Your task to perform on an android device: open app "Life360: Find Family & Friends" (install if not already installed) Image 0: 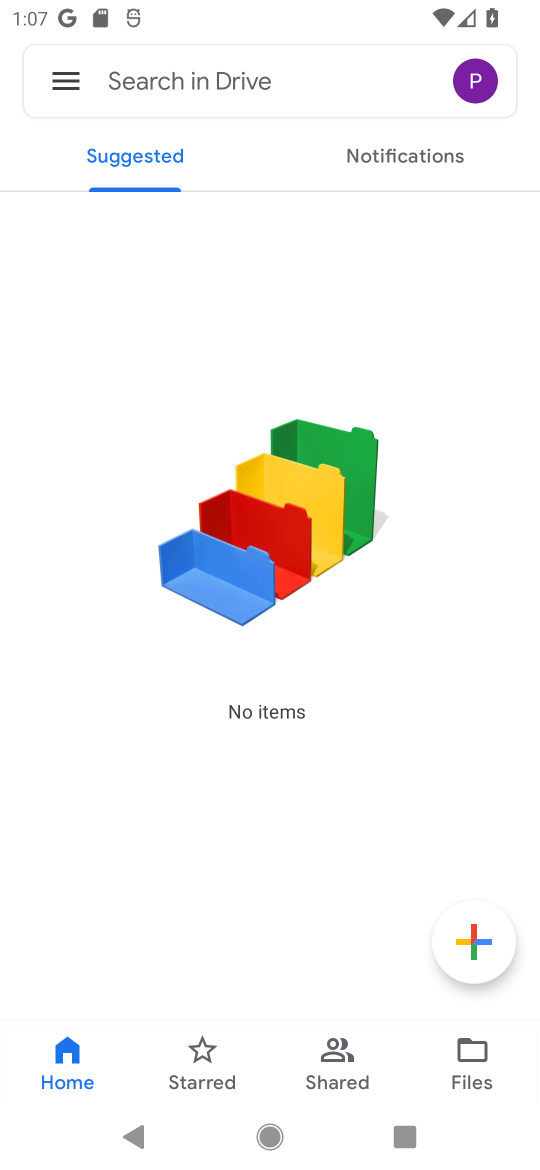
Step 0: press back button
Your task to perform on an android device: open app "Life360: Find Family & Friends" (install if not already installed) Image 1: 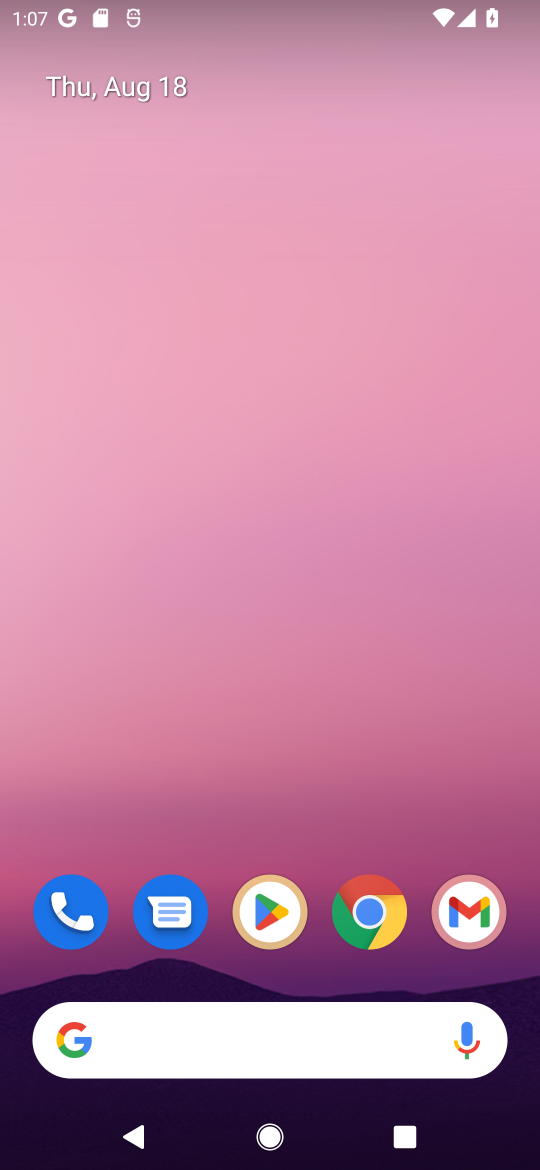
Step 1: click (267, 907)
Your task to perform on an android device: open app "Life360: Find Family & Friends" (install if not already installed) Image 2: 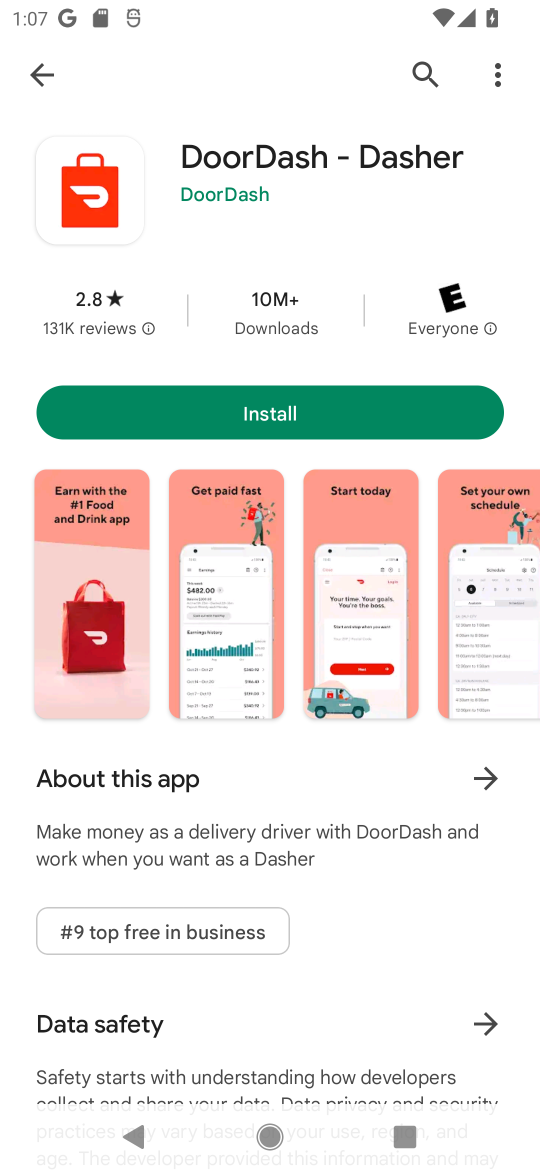
Step 2: click (413, 74)
Your task to perform on an android device: open app "Life360: Find Family & Friends" (install if not already installed) Image 3: 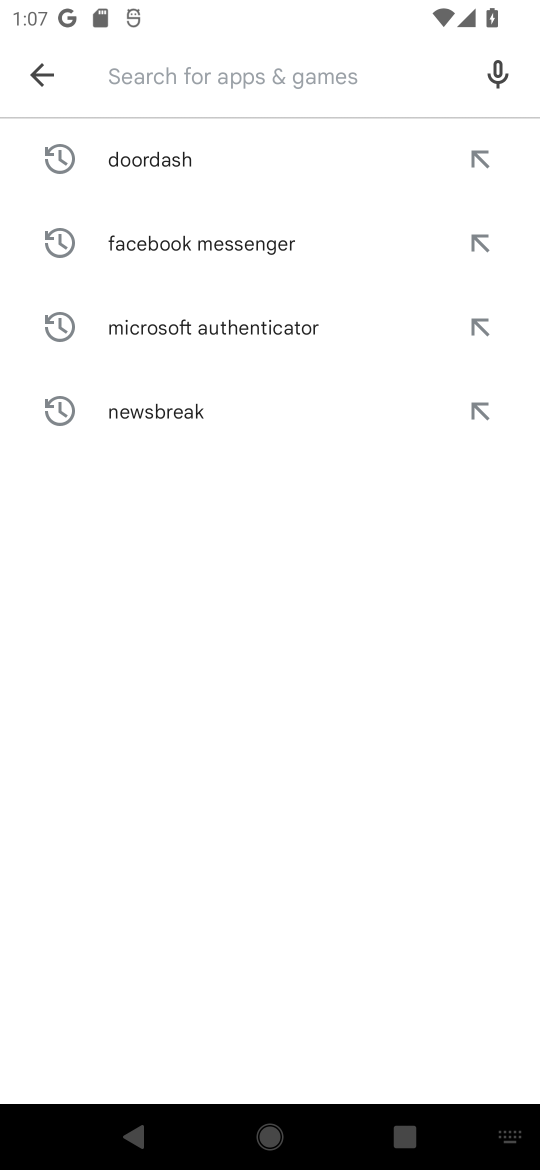
Step 3: click (211, 73)
Your task to perform on an android device: open app "Life360: Find Family & Friends" (install if not already installed) Image 4: 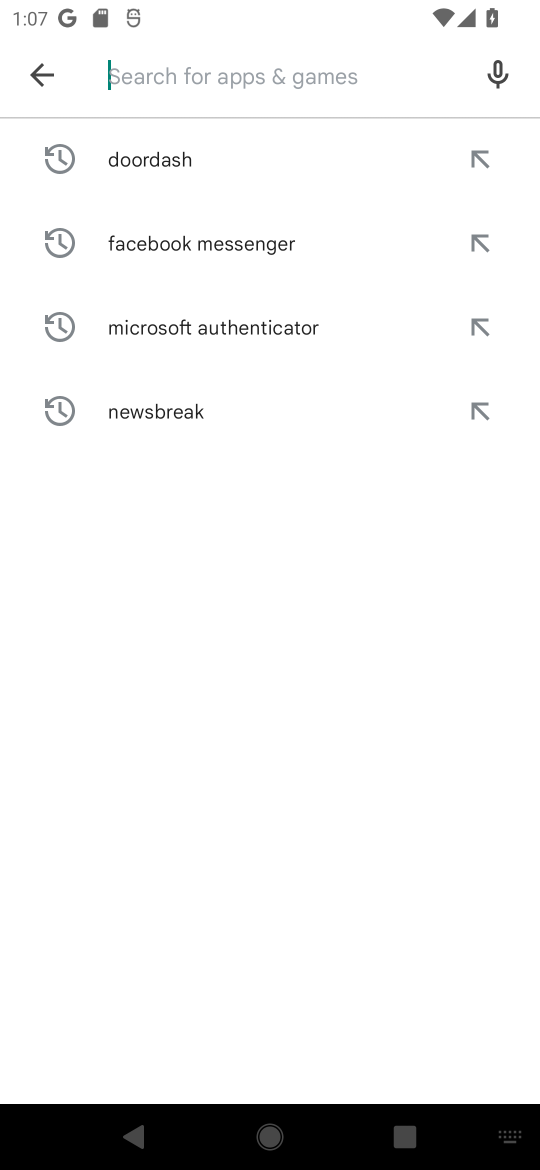
Step 4: type "Life360"
Your task to perform on an android device: open app "Life360: Find Family & Friends" (install if not already installed) Image 5: 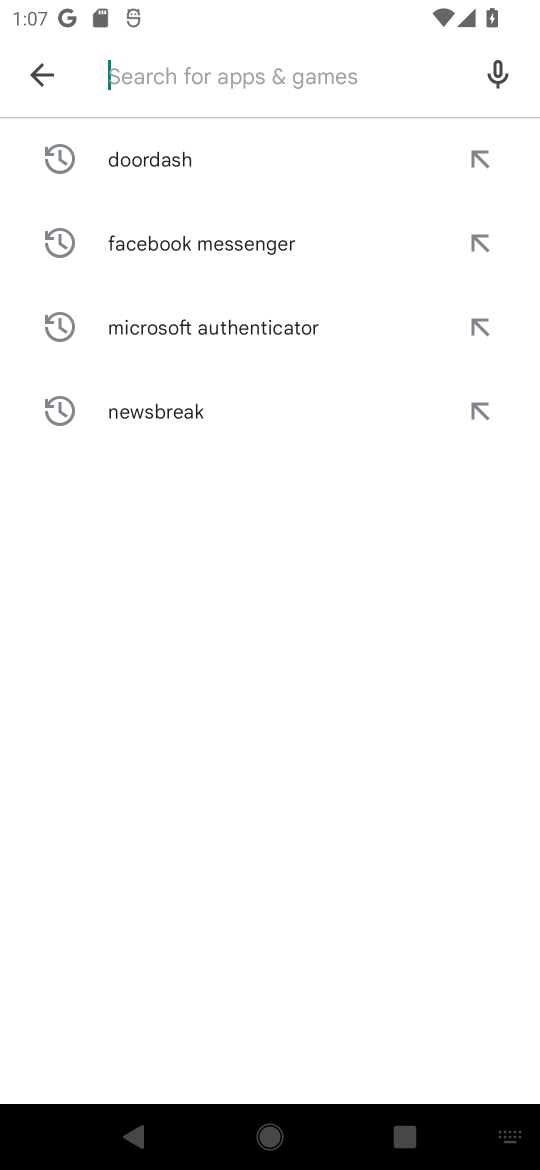
Step 5: click (411, 744)
Your task to perform on an android device: open app "Life360: Find Family & Friends" (install if not already installed) Image 6: 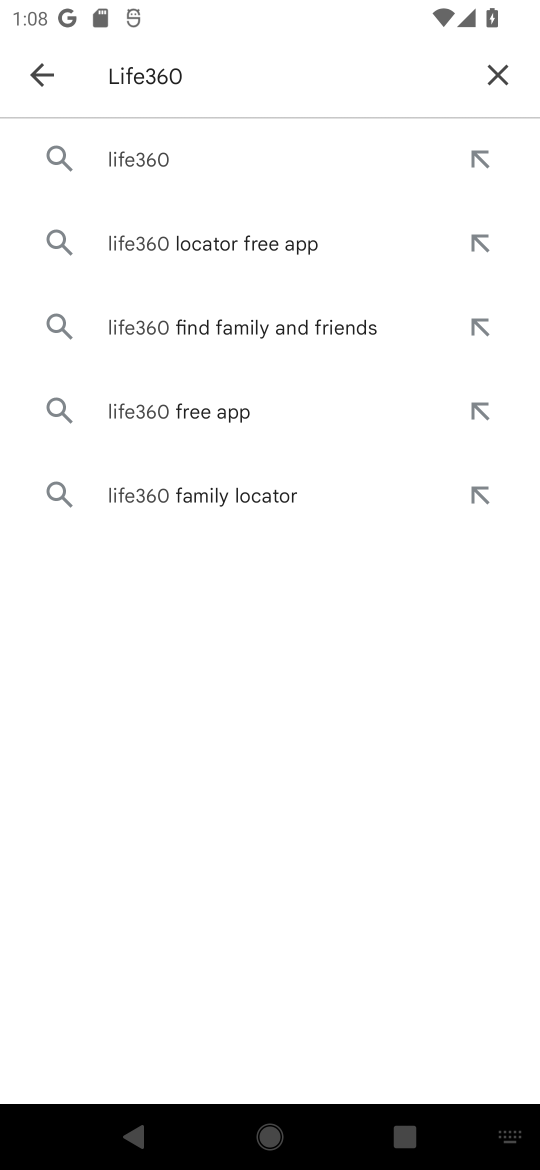
Step 6: click (166, 164)
Your task to perform on an android device: open app "Life360: Find Family & Friends" (install if not already installed) Image 7: 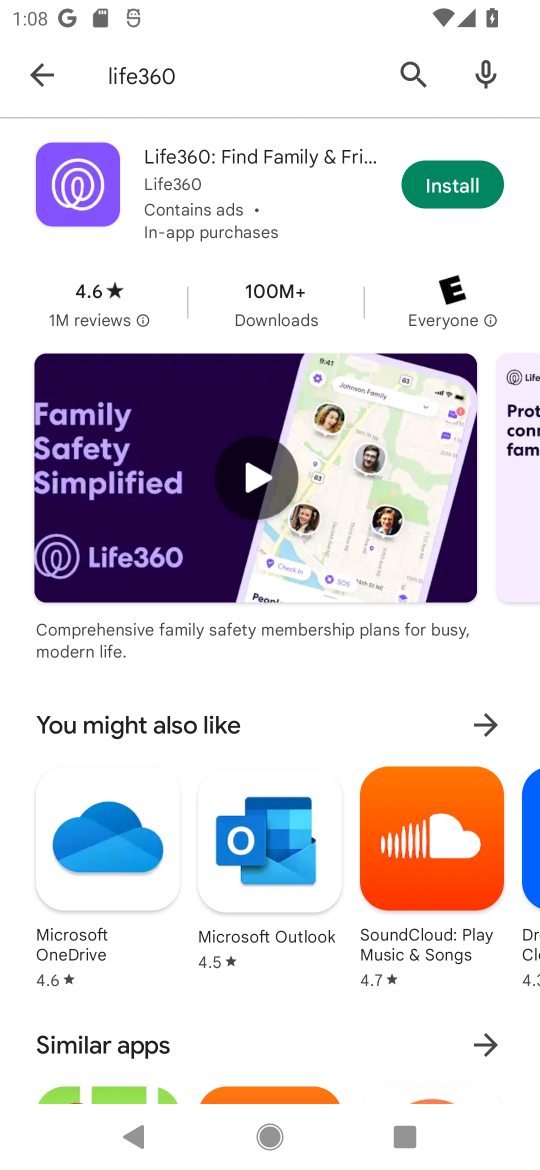
Step 7: click (421, 186)
Your task to perform on an android device: open app "Life360: Find Family & Friends" (install if not already installed) Image 8: 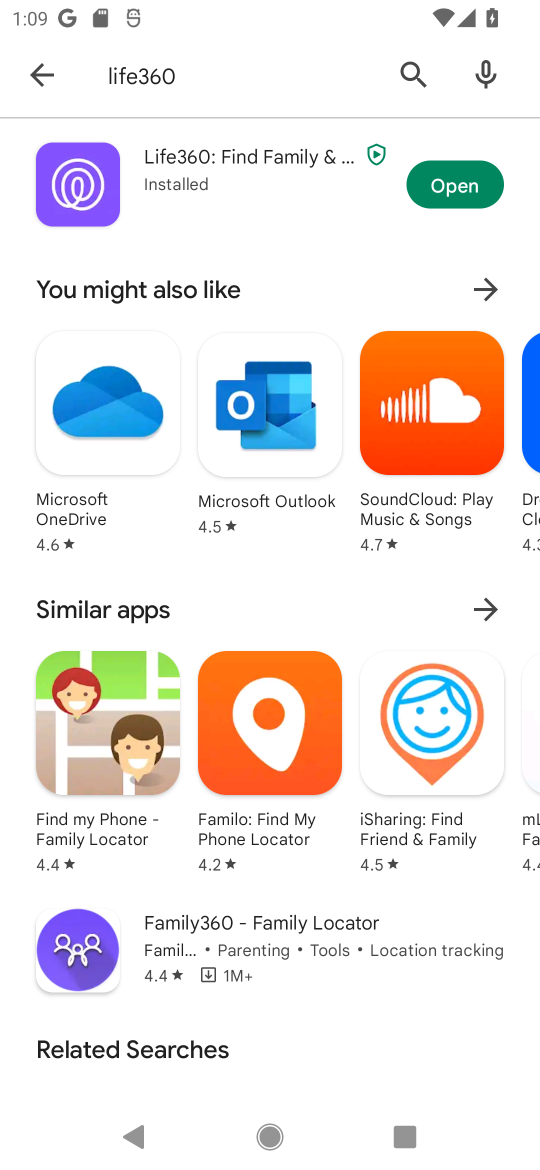
Step 8: click (468, 193)
Your task to perform on an android device: open app "Life360: Find Family & Friends" (install if not already installed) Image 9: 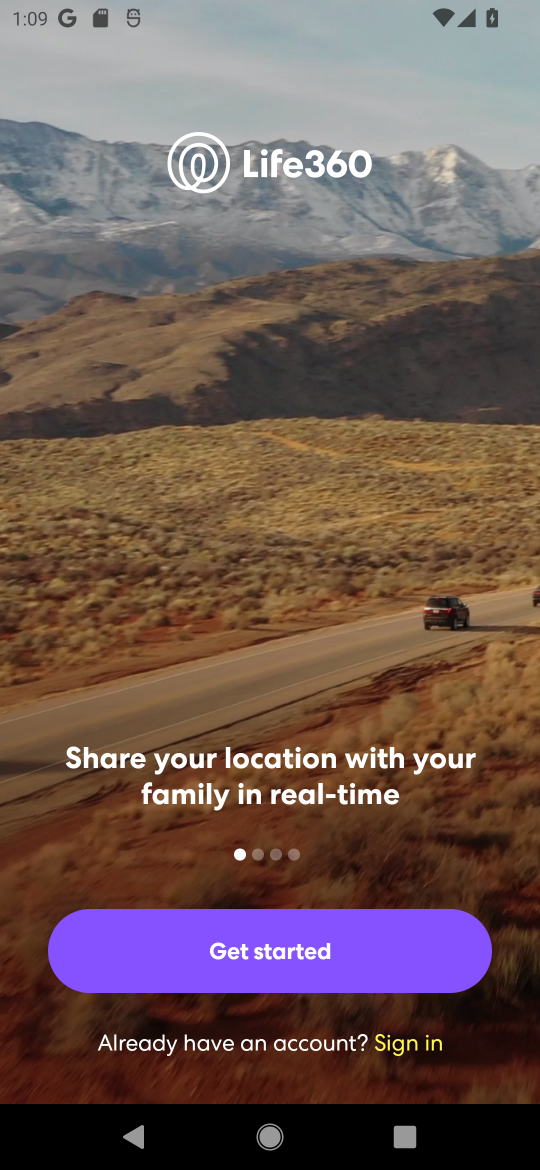
Step 9: task complete